Your task to perform on an android device: turn off javascript in the chrome app Image 0: 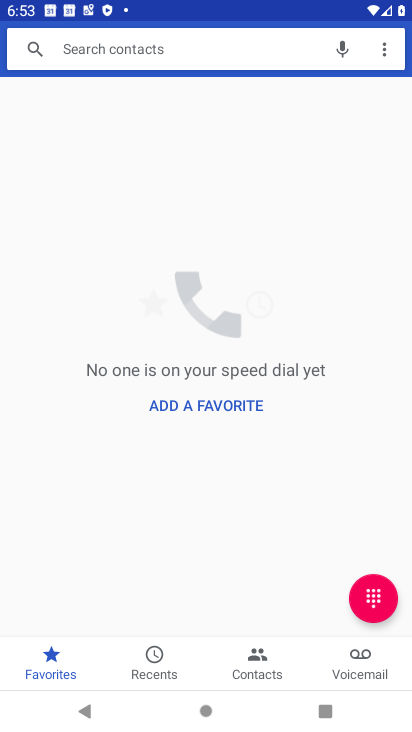
Step 0: press home button
Your task to perform on an android device: turn off javascript in the chrome app Image 1: 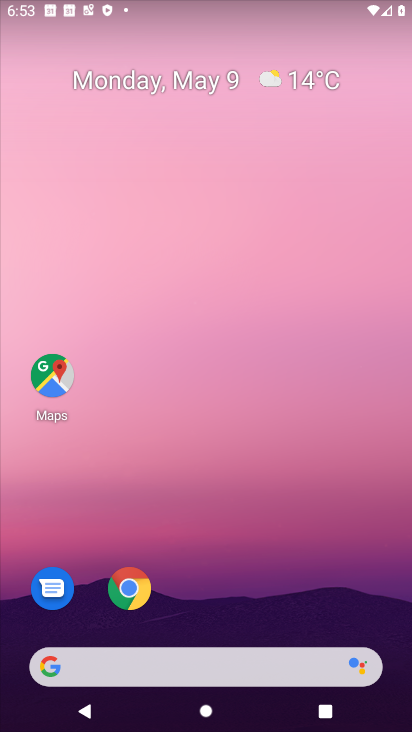
Step 1: drag from (301, 615) to (254, 64)
Your task to perform on an android device: turn off javascript in the chrome app Image 2: 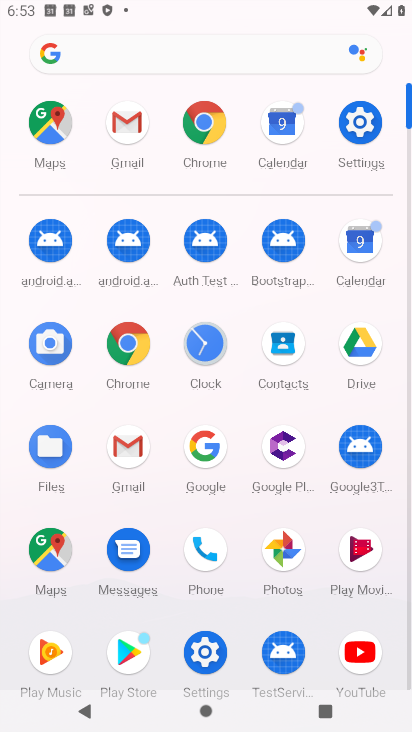
Step 2: click (206, 119)
Your task to perform on an android device: turn off javascript in the chrome app Image 3: 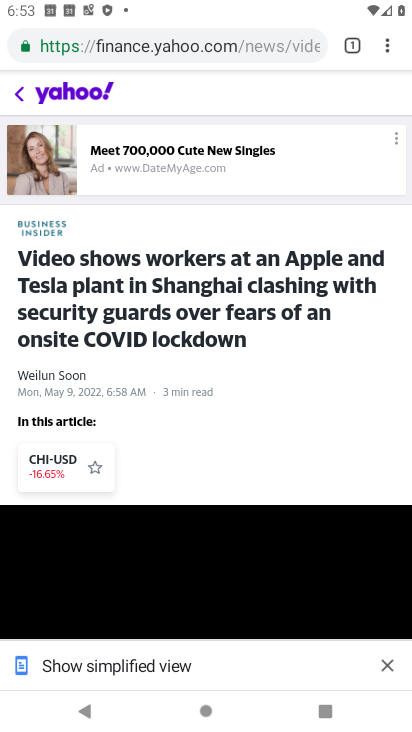
Step 3: press back button
Your task to perform on an android device: turn off javascript in the chrome app Image 4: 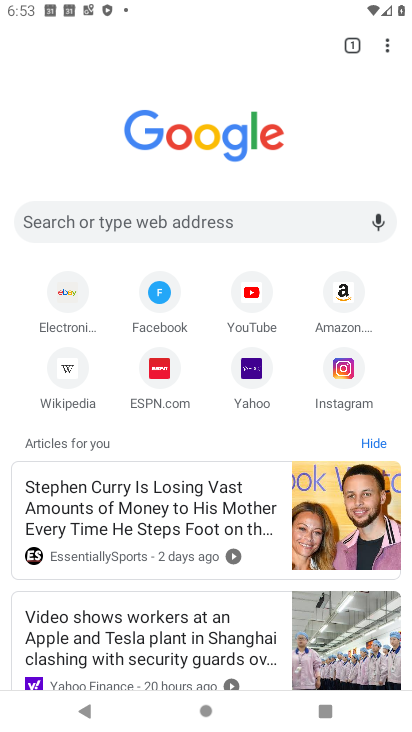
Step 4: click (380, 42)
Your task to perform on an android device: turn off javascript in the chrome app Image 5: 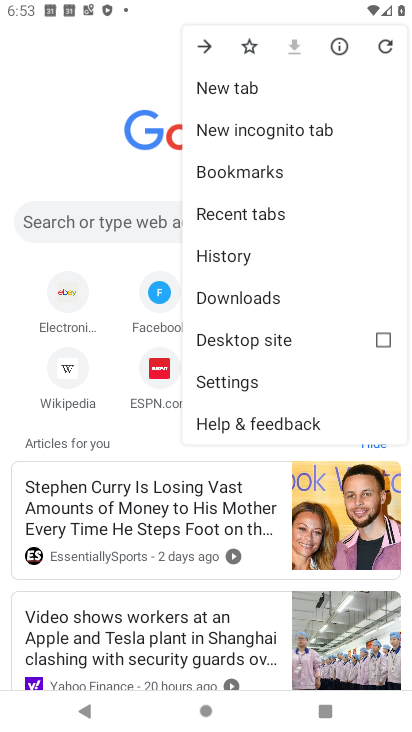
Step 5: click (264, 389)
Your task to perform on an android device: turn off javascript in the chrome app Image 6: 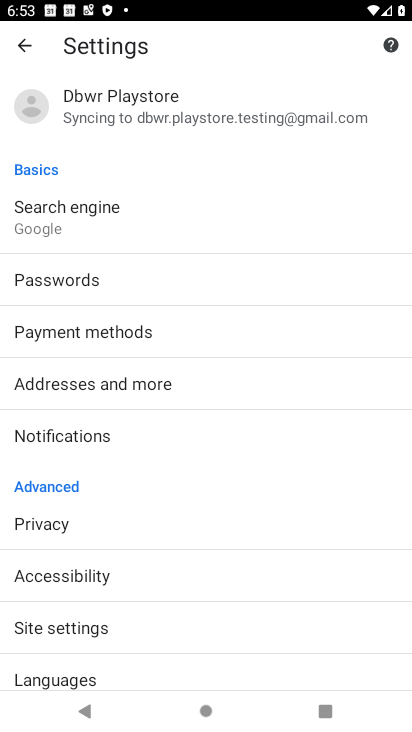
Step 6: click (105, 631)
Your task to perform on an android device: turn off javascript in the chrome app Image 7: 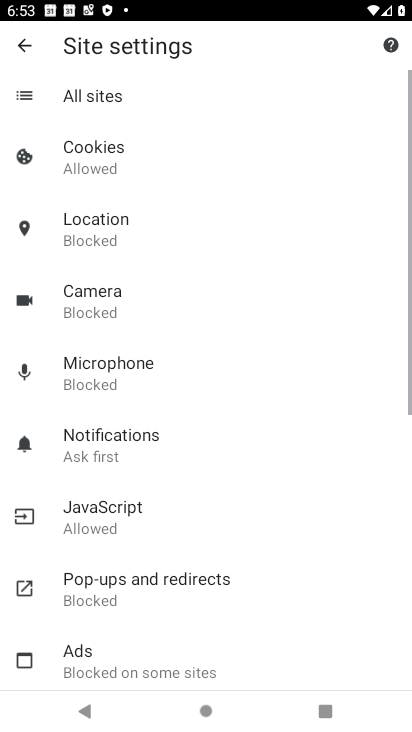
Step 7: click (96, 531)
Your task to perform on an android device: turn off javascript in the chrome app Image 8: 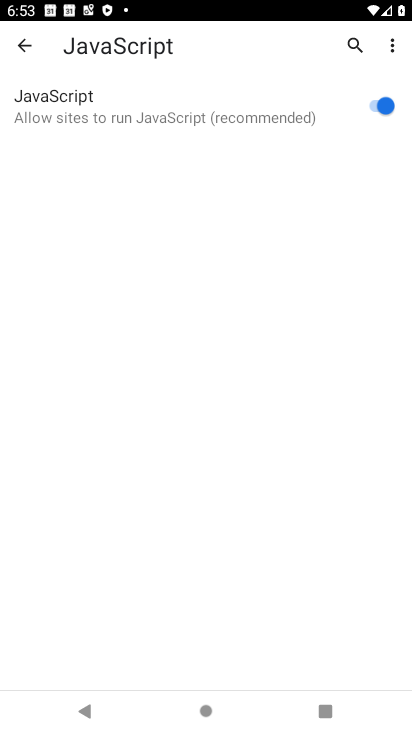
Step 8: click (378, 96)
Your task to perform on an android device: turn off javascript in the chrome app Image 9: 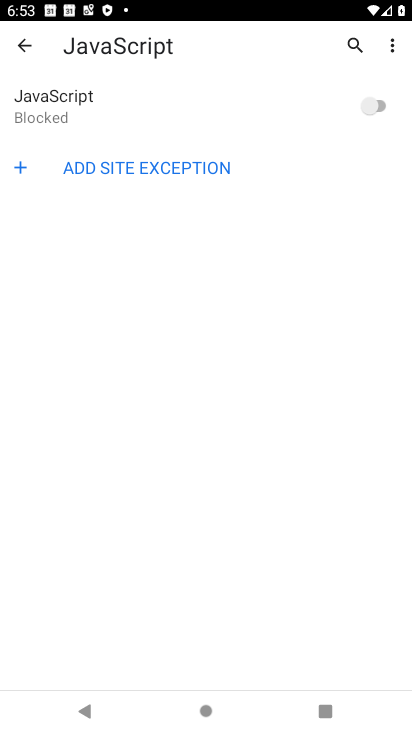
Step 9: task complete